Your task to perform on an android device: set default search engine in the chrome app Image 0: 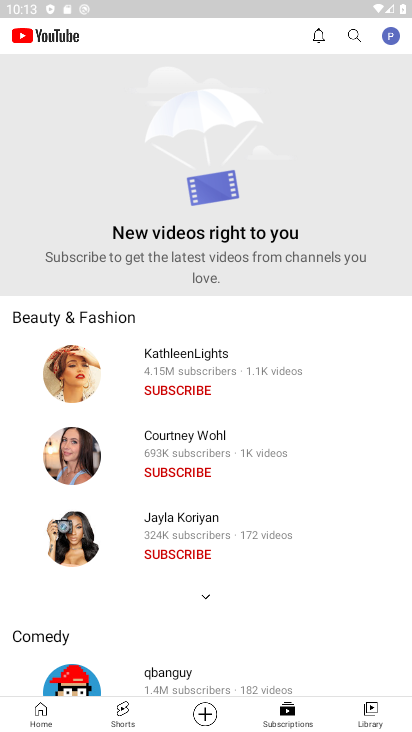
Step 0: press home button
Your task to perform on an android device: set default search engine in the chrome app Image 1: 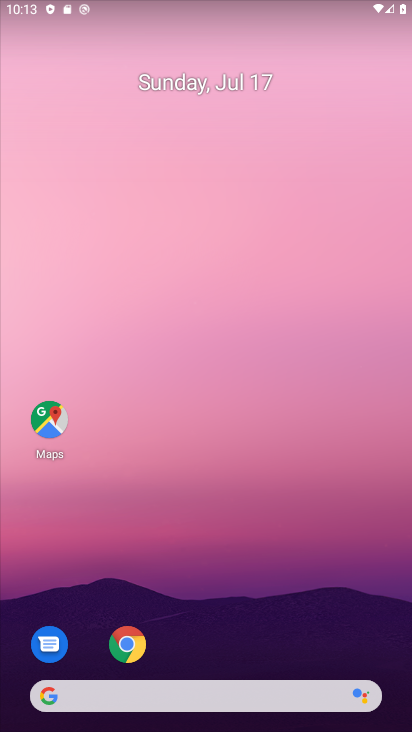
Step 1: drag from (270, 486) to (56, 16)
Your task to perform on an android device: set default search engine in the chrome app Image 2: 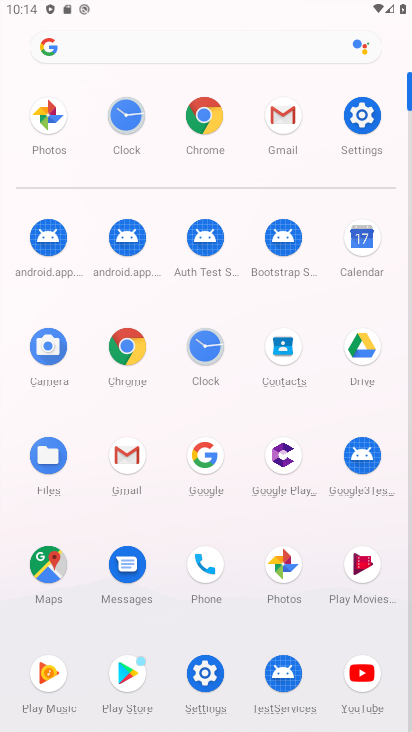
Step 2: click (200, 123)
Your task to perform on an android device: set default search engine in the chrome app Image 3: 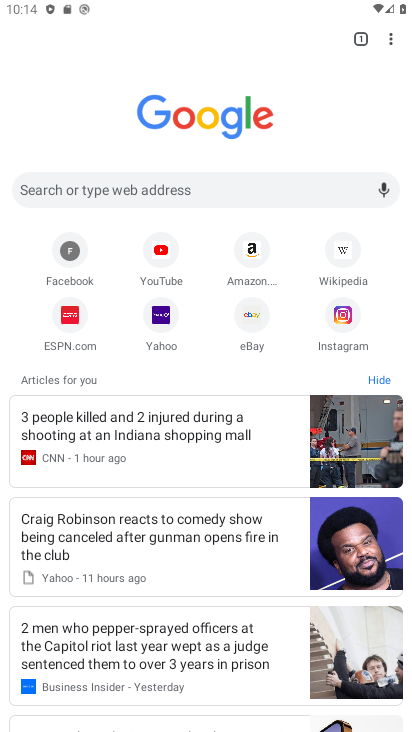
Step 3: drag from (394, 43) to (273, 319)
Your task to perform on an android device: set default search engine in the chrome app Image 4: 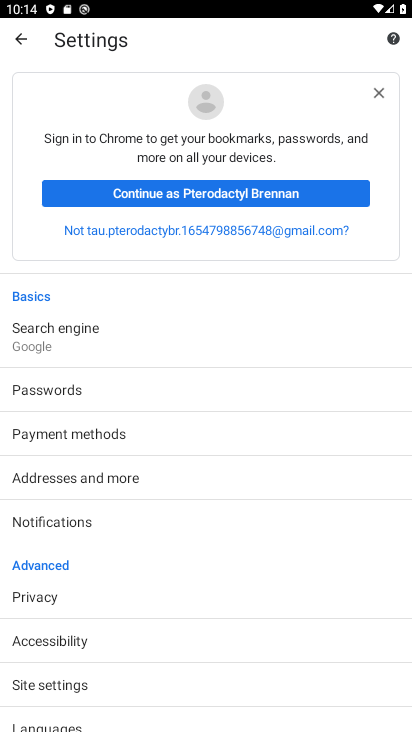
Step 4: click (103, 333)
Your task to perform on an android device: set default search engine in the chrome app Image 5: 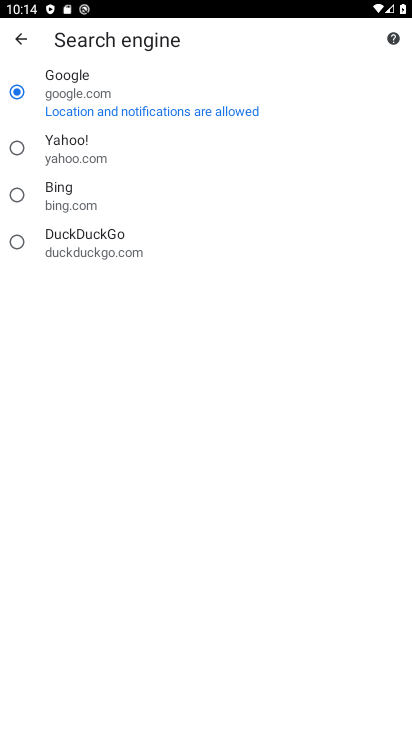
Step 5: task complete